Your task to perform on an android device: Show me productivity apps on the Play Store Image 0: 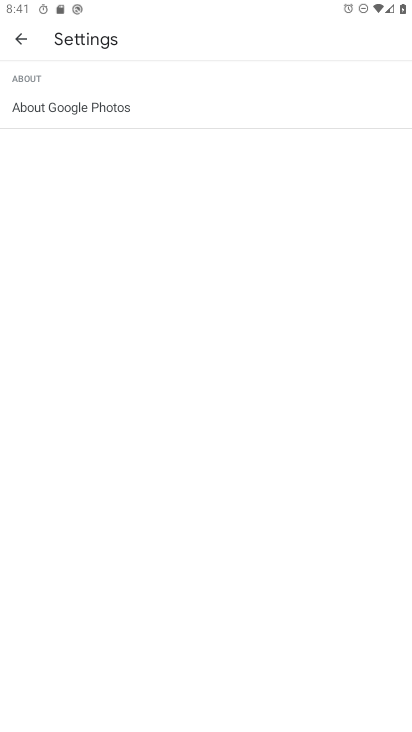
Step 0: press home button
Your task to perform on an android device: Show me productivity apps on the Play Store Image 1: 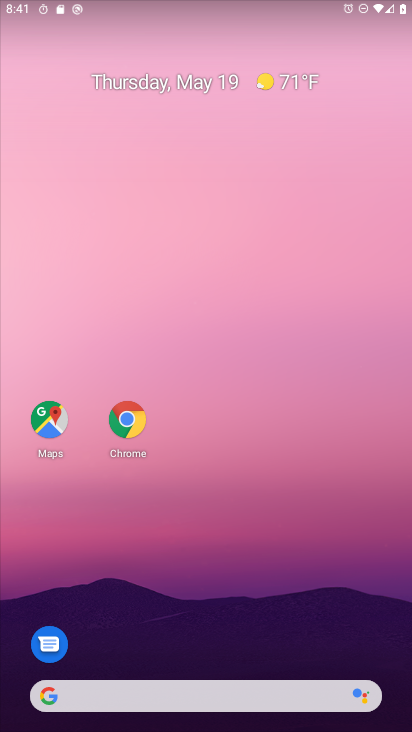
Step 1: drag from (169, 683) to (180, 378)
Your task to perform on an android device: Show me productivity apps on the Play Store Image 2: 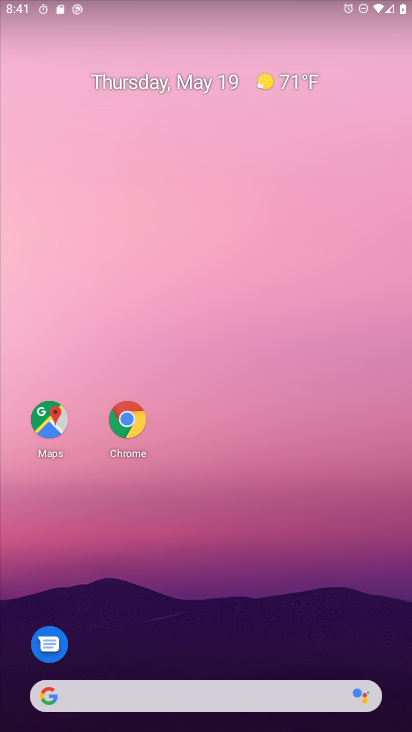
Step 2: drag from (208, 677) to (207, 380)
Your task to perform on an android device: Show me productivity apps on the Play Store Image 3: 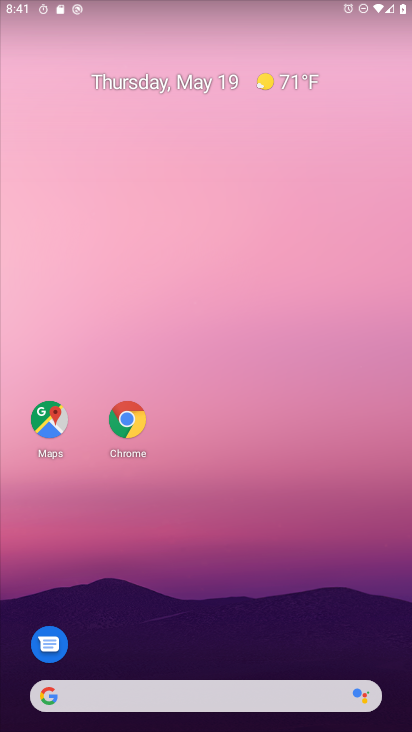
Step 3: drag from (200, 700) to (197, 322)
Your task to perform on an android device: Show me productivity apps on the Play Store Image 4: 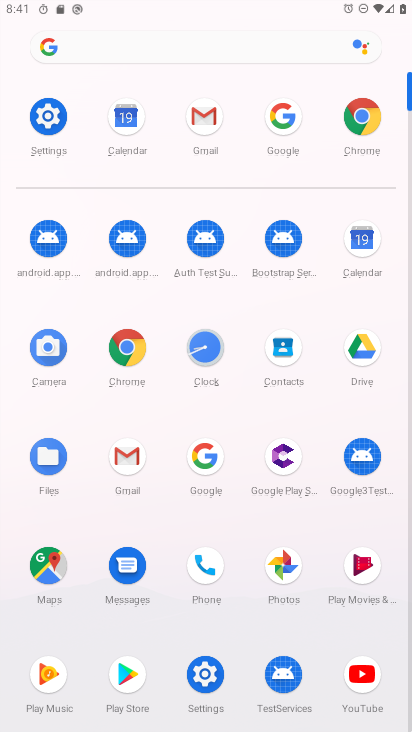
Step 4: click (133, 674)
Your task to perform on an android device: Show me productivity apps on the Play Store Image 5: 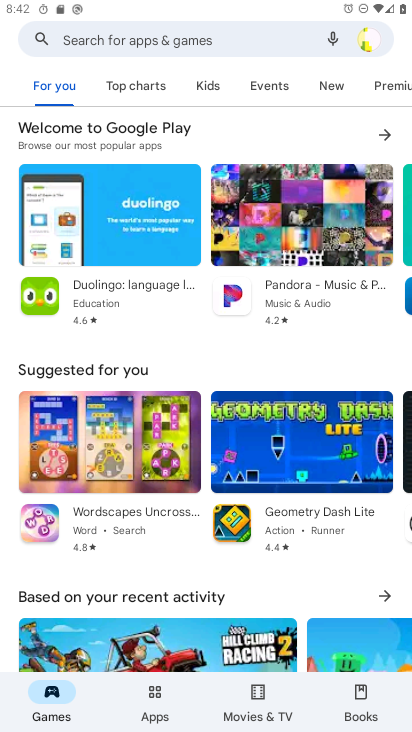
Step 5: click (160, 695)
Your task to perform on an android device: Show me productivity apps on the Play Store Image 6: 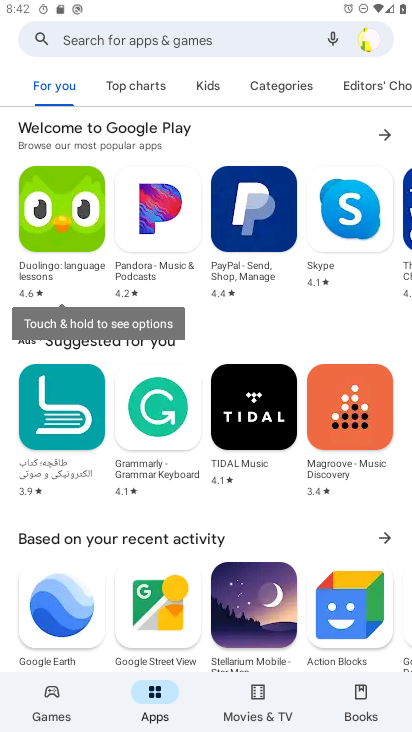
Step 6: task complete